Your task to perform on an android device: change alarm snooze length Image 0: 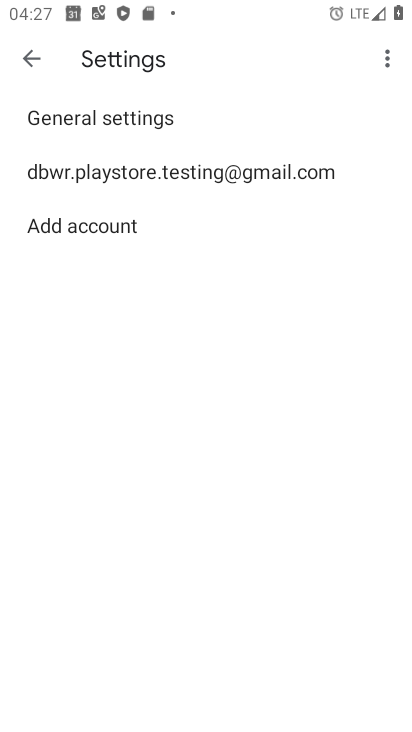
Step 0: press home button
Your task to perform on an android device: change alarm snooze length Image 1: 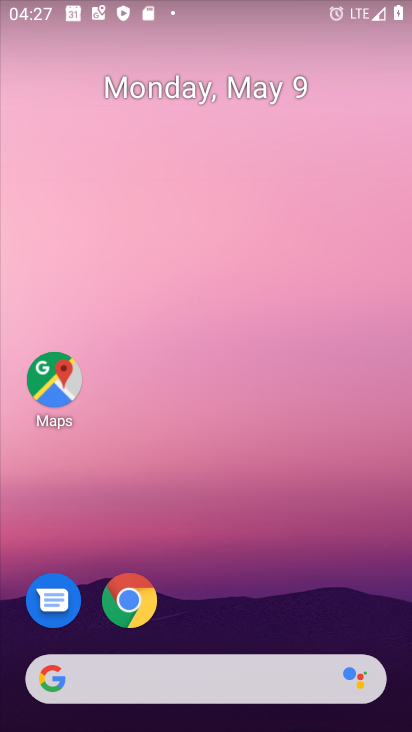
Step 1: drag from (287, 639) to (280, 136)
Your task to perform on an android device: change alarm snooze length Image 2: 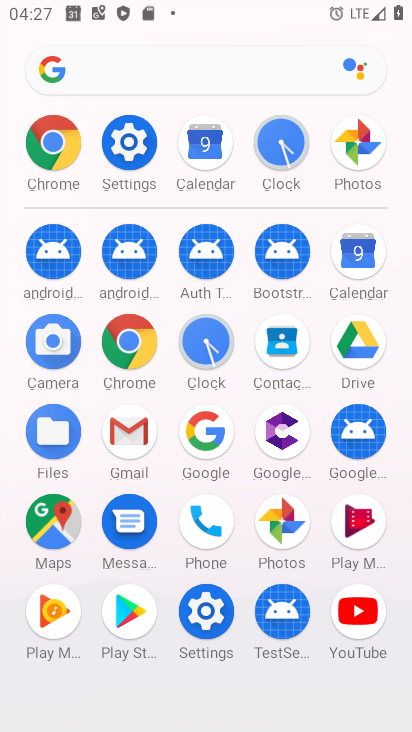
Step 2: click (221, 347)
Your task to perform on an android device: change alarm snooze length Image 3: 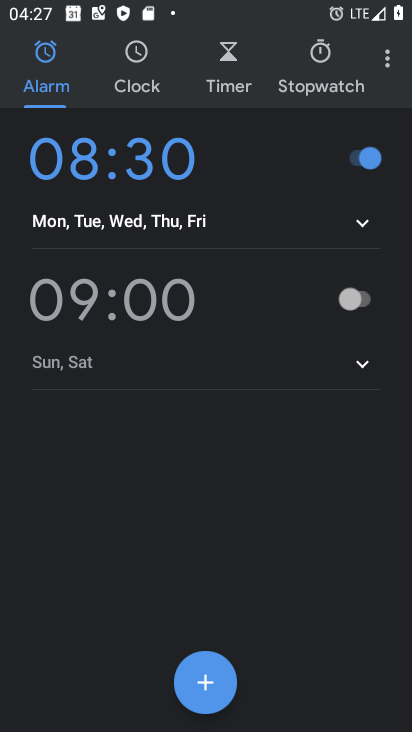
Step 3: click (379, 58)
Your task to perform on an android device: change alarm snooze length Image 4: 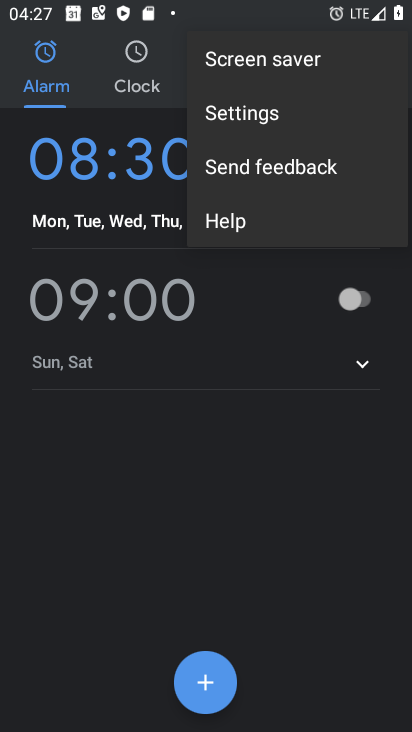
Step 4: click (282, 126)
Your task to perform on an android device: change alarm snooze length Image 5: 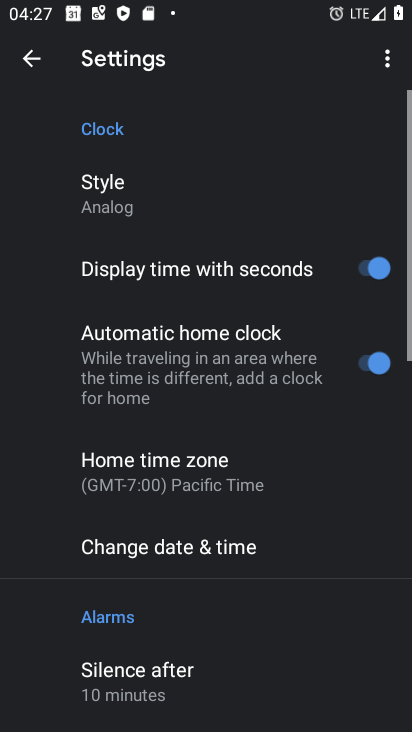
Step 5: drag from (225, 553) to (204, 12)
Your task to perform on an android device: change alarm snooze length Image 6: 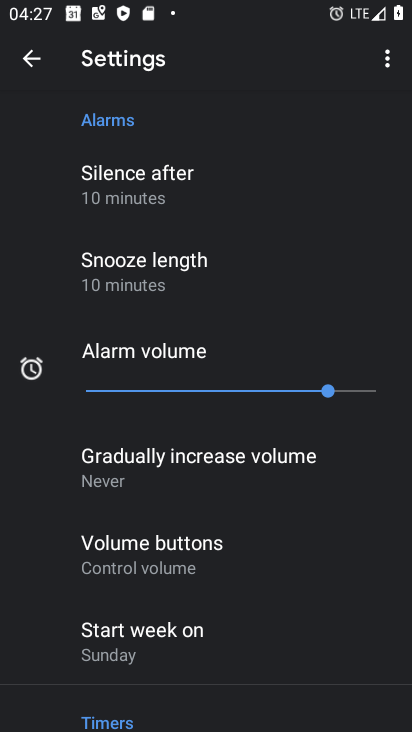
Step 6: click (187, 267)
Your task to perform on an android device: change alarm snooze length Image 7: 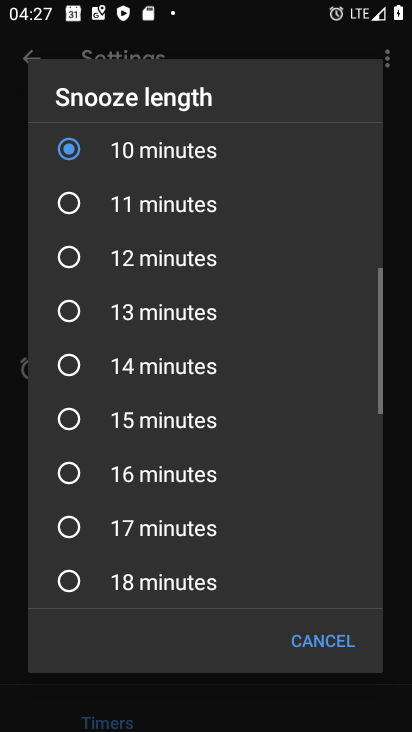
Step 7: click (81, 214)
Your task to perform on an android device: change alarm snooze length Image 8: 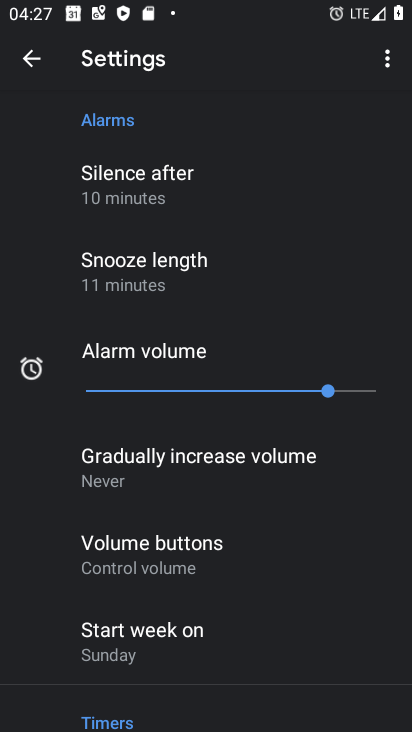
Step 8: task complete